Your task to perform on an android device: What's on my calendar tomorrow? Image 0: 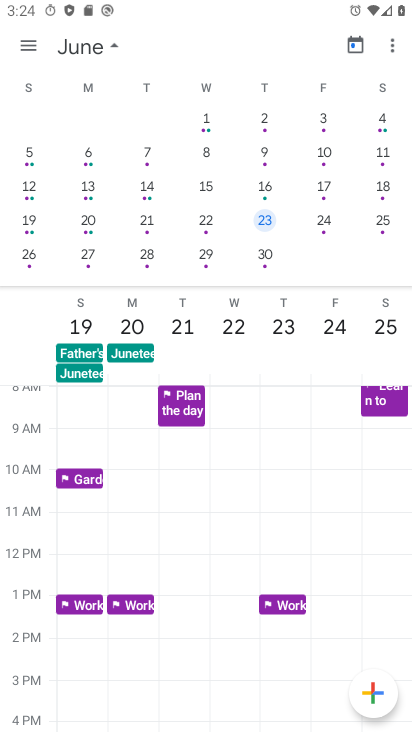
Step 0: press home button
Your task to perform on an android device: What's on my calendar tomorrow? Image 1: 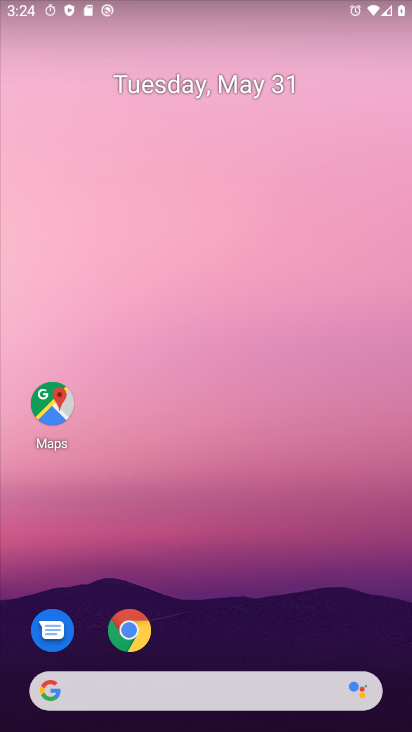
Step 1: drag from (219, 564) to (189, 73)
Your task to perform on an android device: What's on my calendar tomorrow? Image 2: 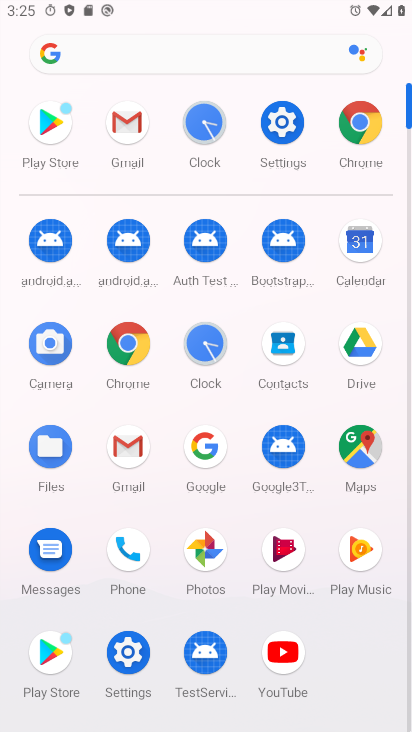
Step 2: click (363, 252)
Your task to perform on an android device: What's on my calendar tomorrow? Image 3: 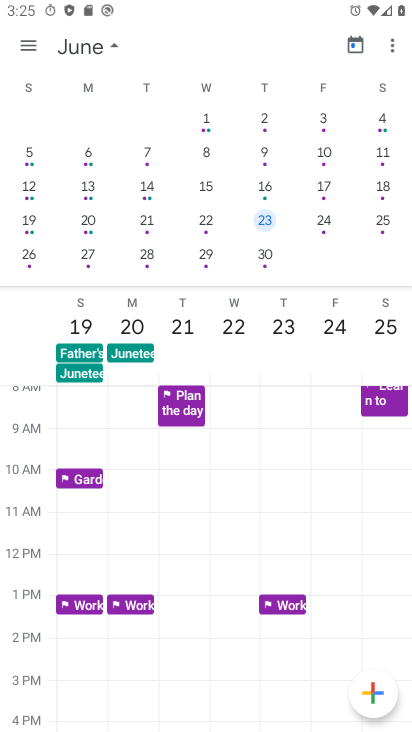
Step 3: click (207, 117)
Your task to perform on an android device: What's on my calendar tomorrow? Image 4: 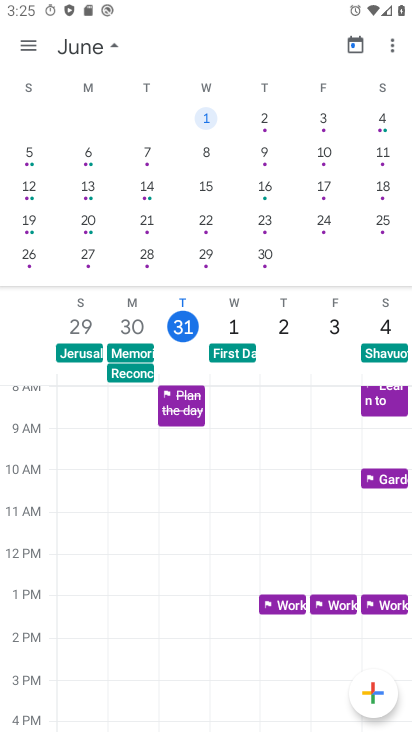
Step 4: task complete